Your task to perform on an android device: Search for sushi restaurants on Maps Image 0: 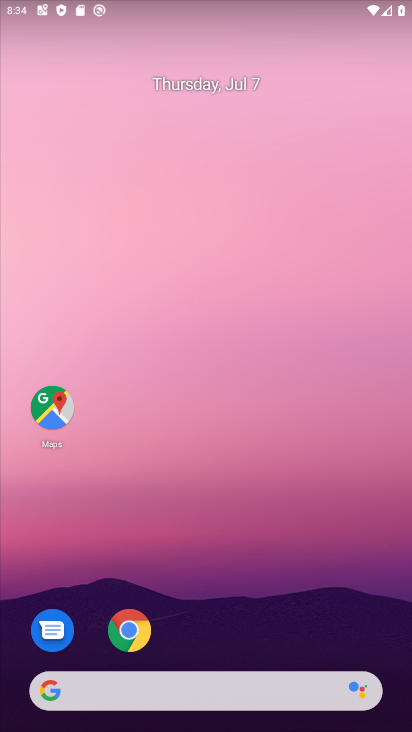
Step 0: drag from (190, 623) to (202, 301)
Your task to perform on an android device: Search for sushi restaurants on Maps Image 1: 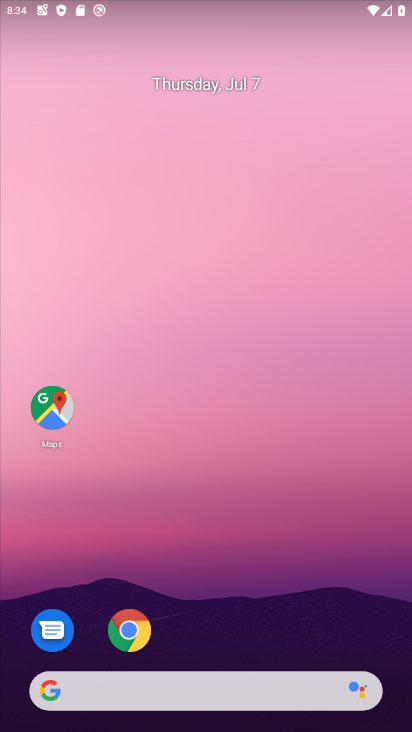
Step 1: drag from (167, 663) to (197, 135)
Your task to perform on an android device: Search for sushi restaurants on Maps Image 2: 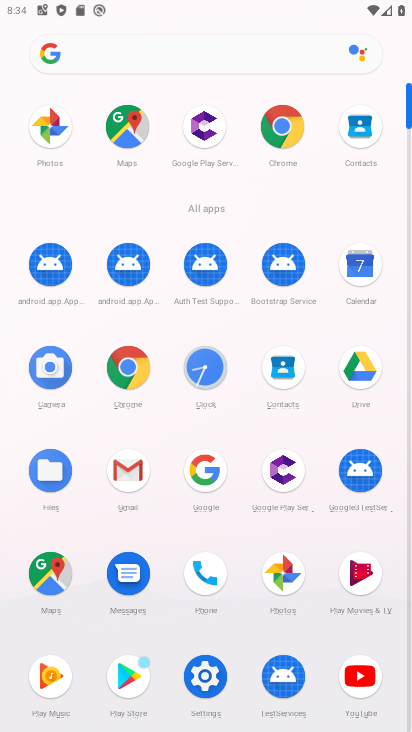
Step 2: click (47, 571)
Your task to perform on an android device: Search for sushi restaurants on Maps Image 3: 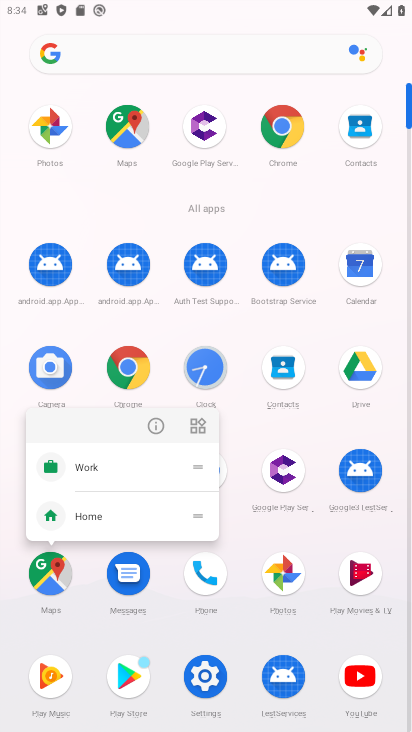
Step 3: click (152, 425)
Your task to perform on an android device: Search for sushi restaurants on Maps Image 4: 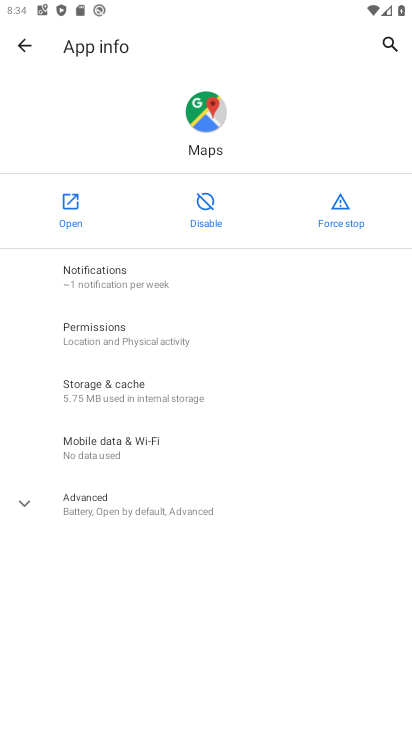
Step 4: click (70, 212)
Your task to perform on an android device: Search for sushi restaurants on Maps Image 5: 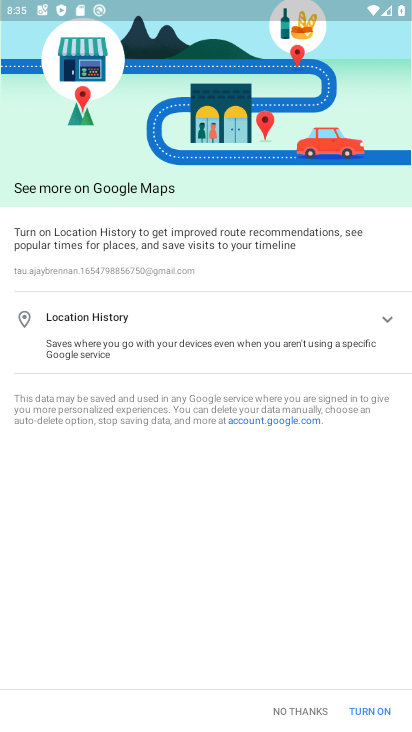
Step 5: click (295, 703)
Your task to perform on an android device: Search for sushi restaurants on Maps Image 6: 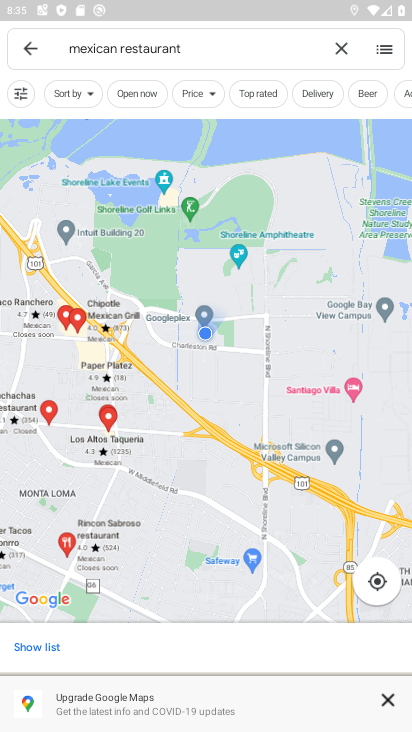
Step 6: click (352, 38)
Your task to perform on an android device: Search for sushi restaurants on Maps Image 7: 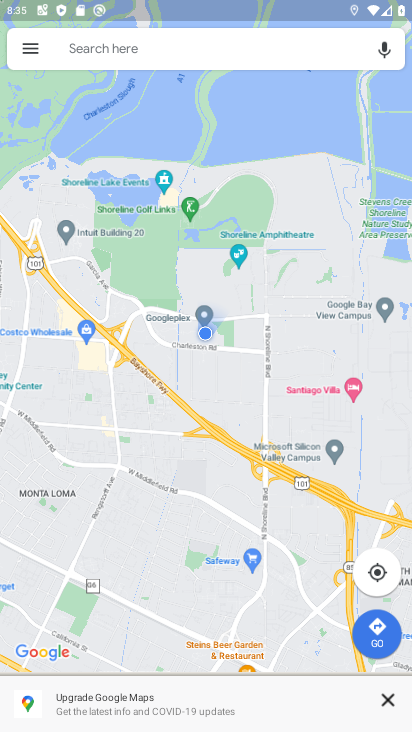
Step 7: click (163, 44)
Your task to perform on an android device: Search for sushi restaurants on Maps Image 8: 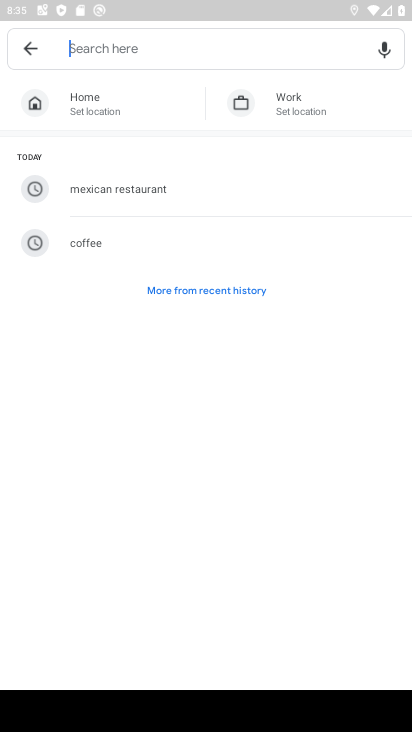
Step 8: type "sushi restaurants"
Your task to perform on an android device: Search for sushi restaurants on Maps Image 9: 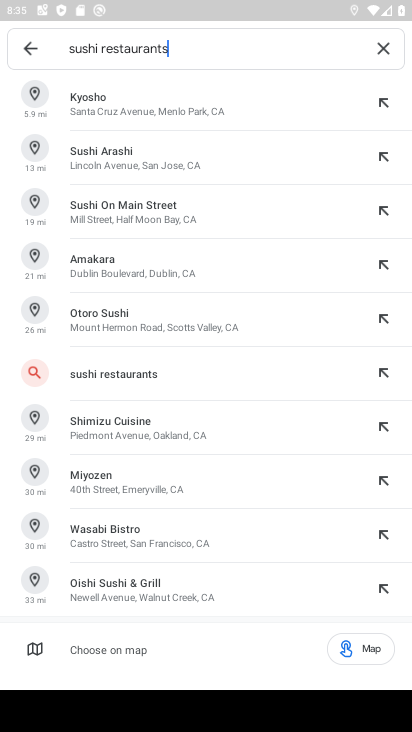
Step 9: click (88, 378)
Your task to perform on an android device: Search for sushi restaurants on Maps Image 10: 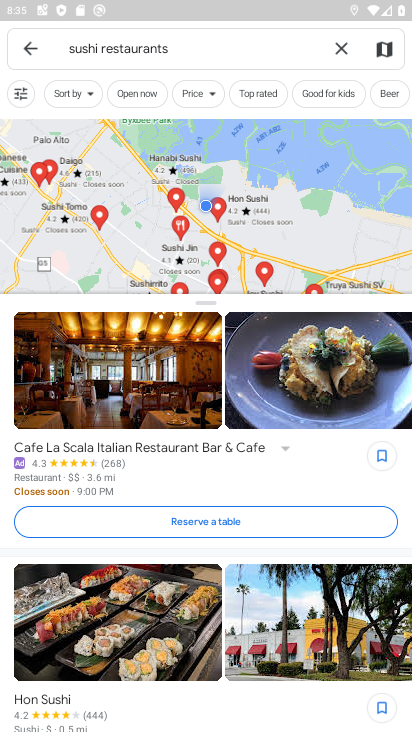
Step 10: task complete